Your task to perform on an android device: Open Youtube and go to "Your channel" Image 0: 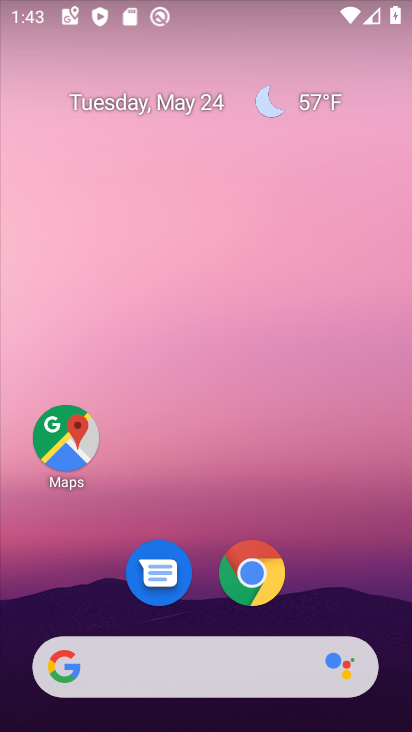
Step 0: drag from (357, 575) to (399, 133)
Your task to perform on an android device: Open Youtube and go to "Your channel" Image 1: 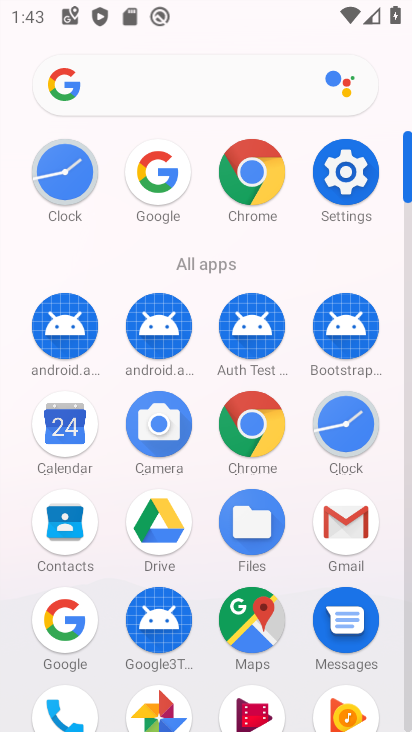
Step 1: drag from (304, 263) to (331, 14)
Your task to perform on an android device: Open Youtube and go to "Your channel" Image 2: 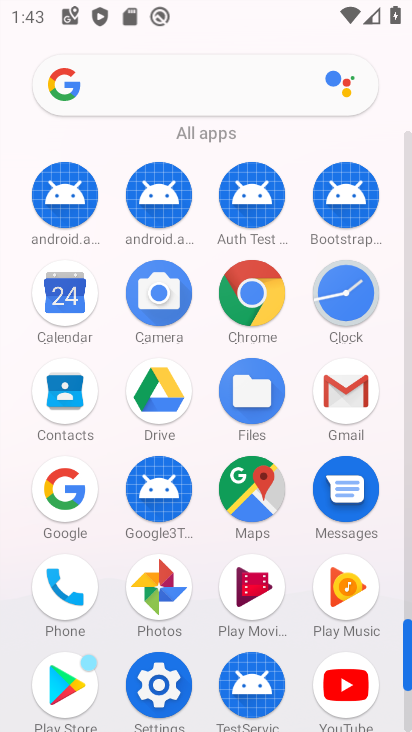
Step 2: click (336, 681)
Your task to perform on an android device: Open Youtube and go to "Your channel" Image 3: 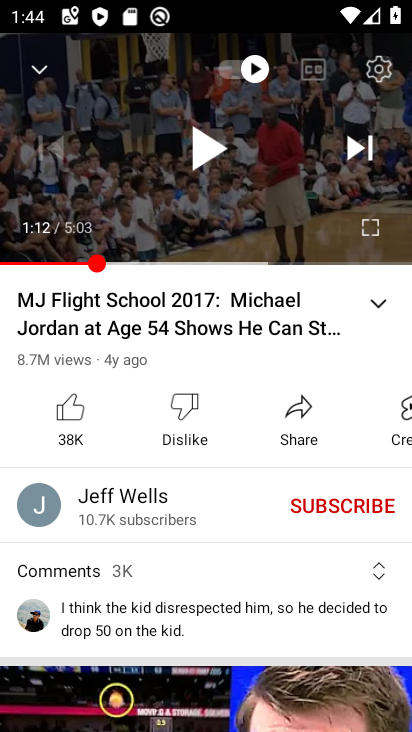
Step 3: drag from (271, 203) to (332, 468)
Your task to perform on an android device: Open Youtube and go to "Your channel" Image 4: 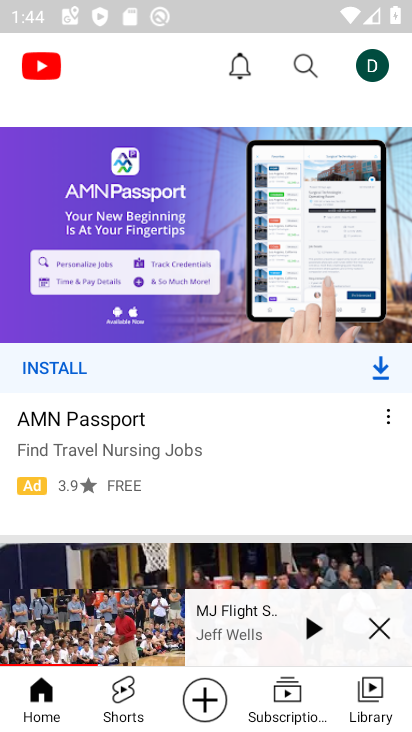
Step 4: click (388, 52)
Your task to perform on an android device: Open Youtube and go to "Your channel" Image 5: 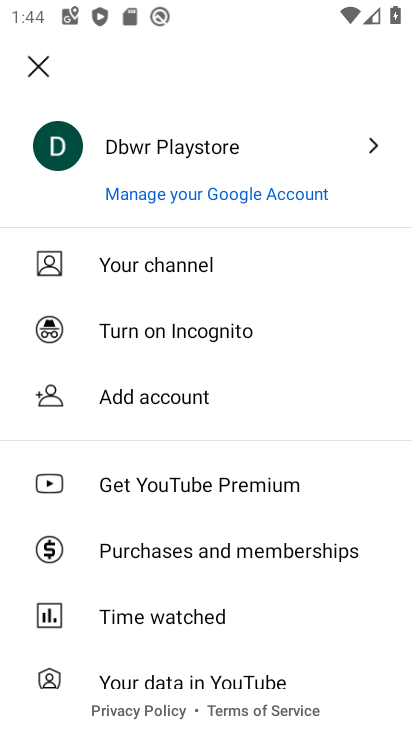
Step 5: click (103, 262)
Your task to perform on an android device: Open Youtube and go to "Your channel" Image 6: 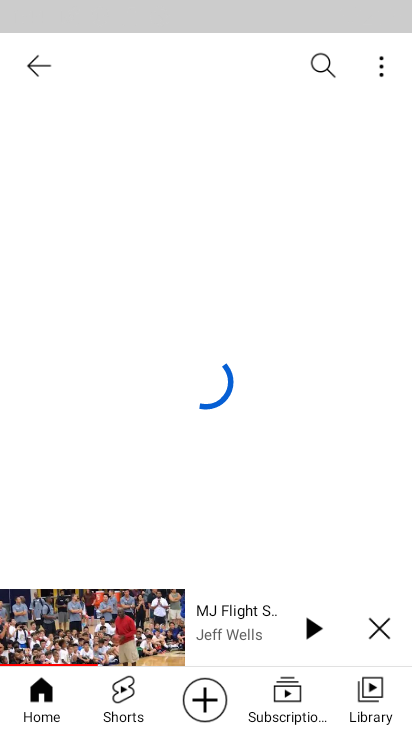
Step 6: click (103, 262)
Your task to perform on an android device: Open Youtube and go to "Your channel" Image 7: 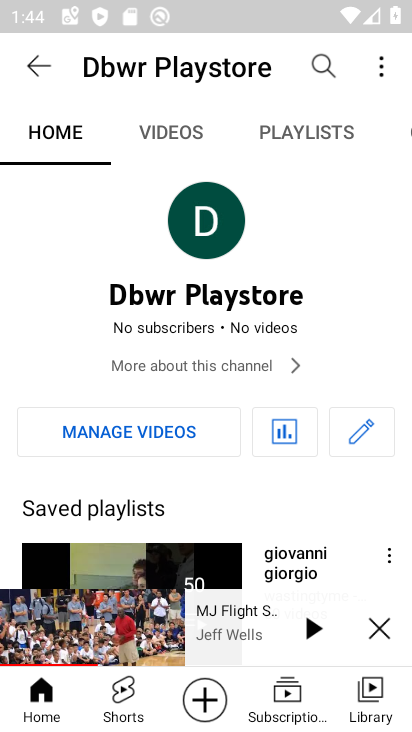
Step 7: task complete